Your task to perform on an android device: Open Youtube and go to "Your channel" Image 0: 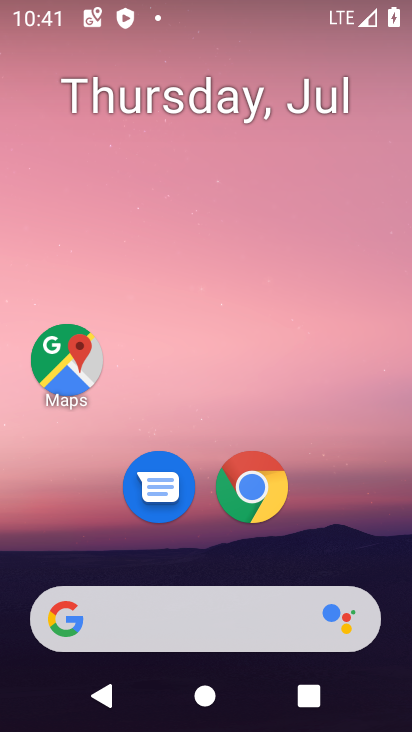
Step 0: drag from (109, 567) to (249, 16)
Your task to perform on an android device: Open Youtube and go to "Your channel" Image 1: 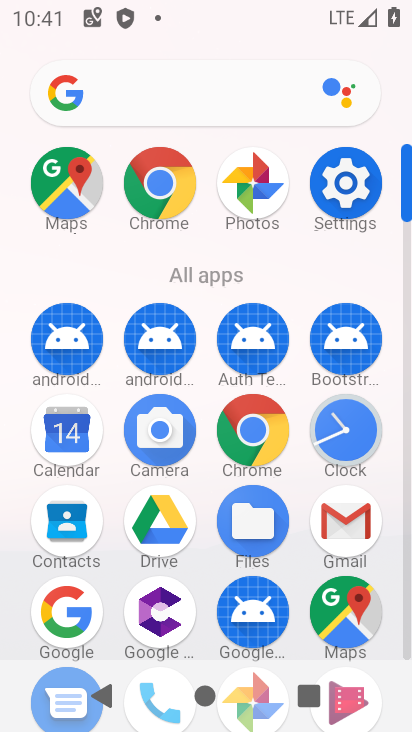
Step 1: drag from (176, 610) to (248, 79)
Your task to perform on an android device: Open Youtube and go to "Your channel" Image 2: 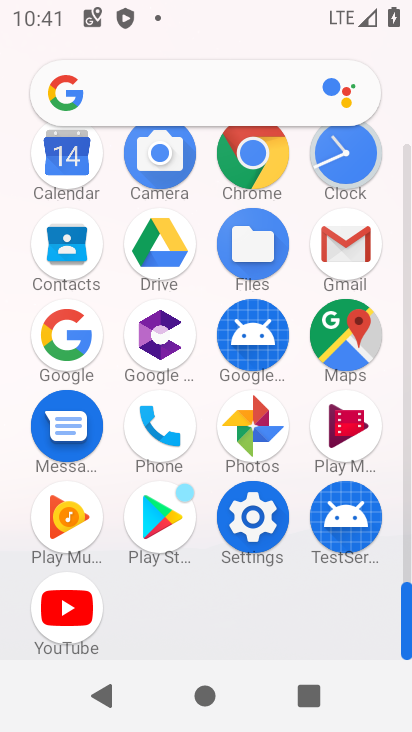
Step 2: click (69, 592)
Your task to perform on an android device: Open Youtube and go to "Your channel" Image 3: 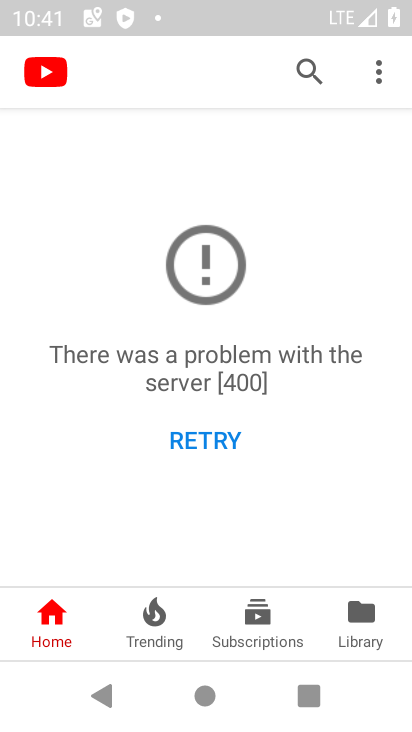
Step 3: task complete